Your task to perform on an android device: turn on the 24-hour format for clock Image 0: 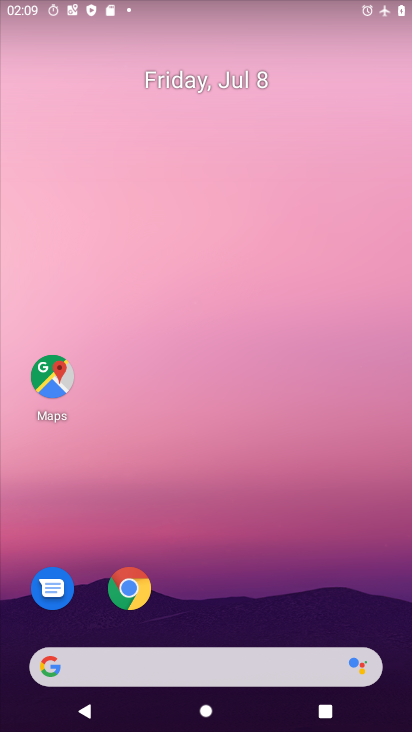
Step 0: drag from (230, 557) to (281, 132)
Your task to perform on an android device: turn on the 24-hour format for clock Image 1: 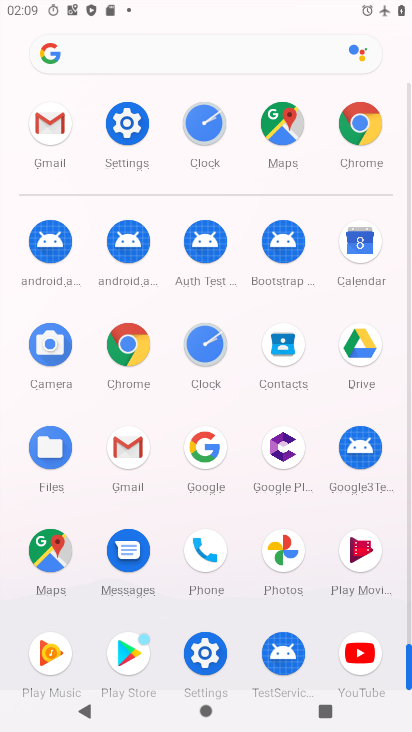
Step 1: click (207, 347)
Your task to perform on an android device: turn on the 24-hour format for clock Image 2: 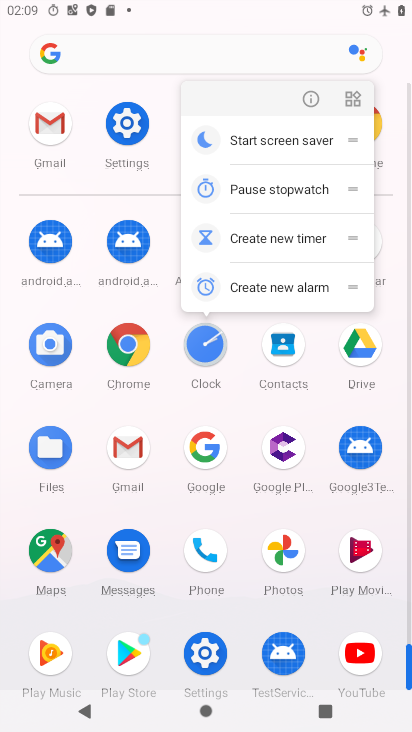
Step 2: click (313, 91)
Your task to perform on an android device: turn on the 24-hour format for clock Image 3: 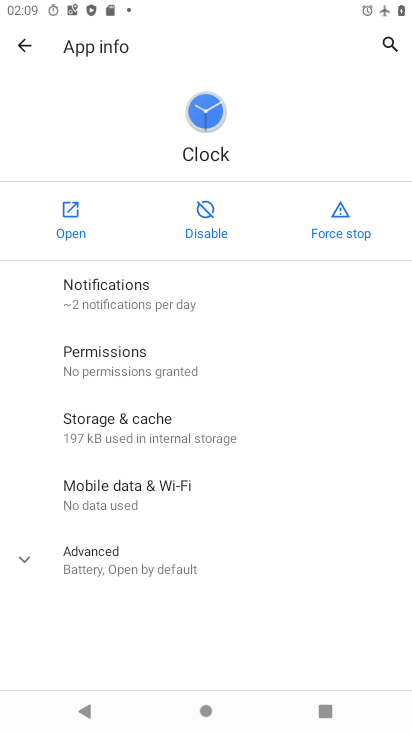
Step 3: click (81, 210)
Your task to perform on an android device: turn on the 24-hour format for clock Image 4: 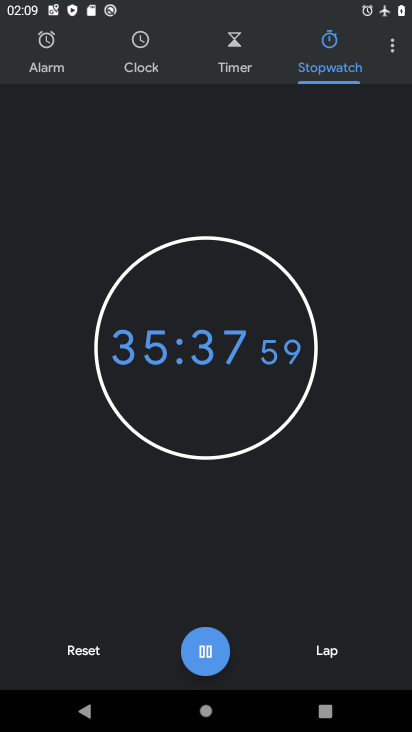
Step 4: click (400, 47)
Your task to perform on an android device: turn on the 24-hour format for clock Image 5: 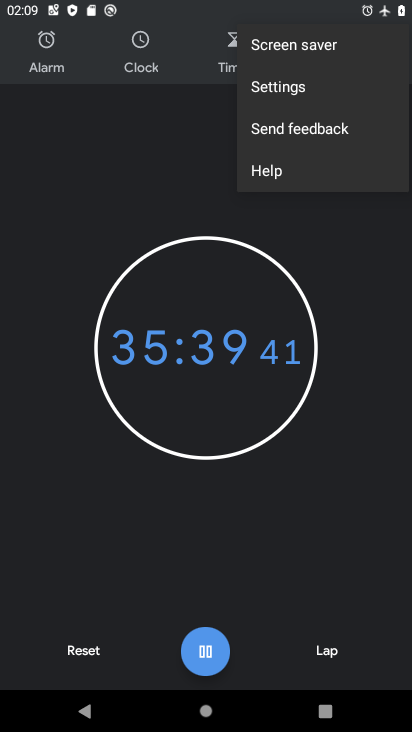
Step 5: click (326, 72)
Your task to perform on an android device: turn on the 24-hour format for clock Image 6: 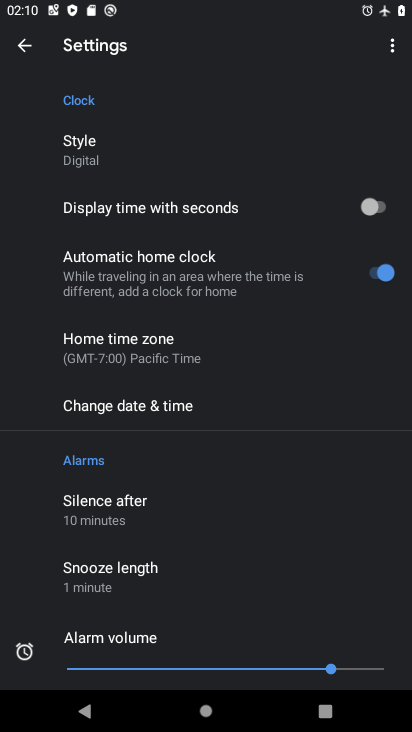
Step 6: click (165, 405)
Your task to perform on an android device: turn on the 24-hour format for clock Image 7: 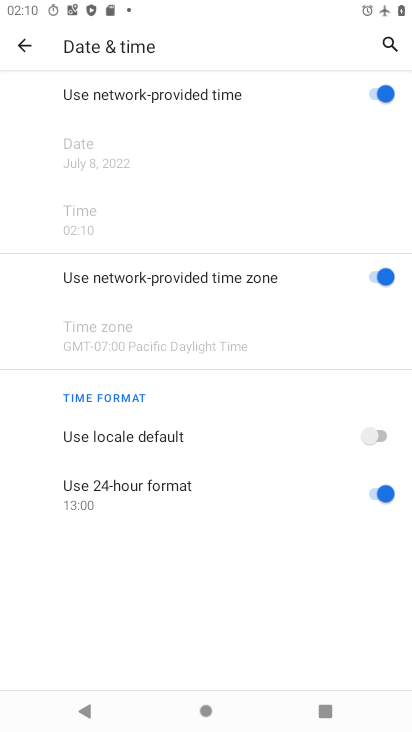
Step 7: task complete